Your task to perform on an android device: What's the weather today? Image 0: 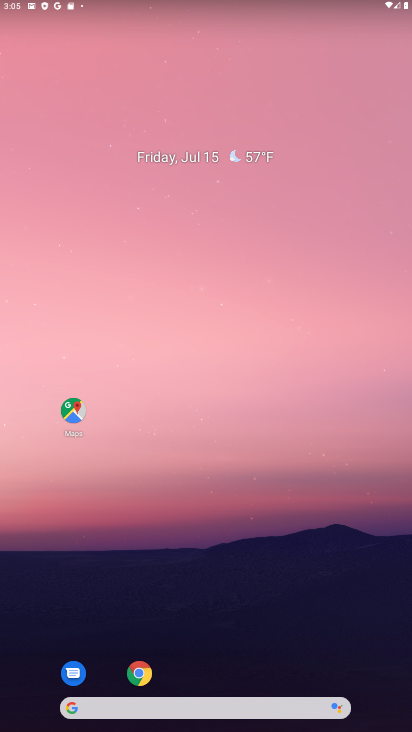
Step 0: drag from (185, 443) to (157, 30)
Your task to perform on an android device: What's the weather today? Image 1: 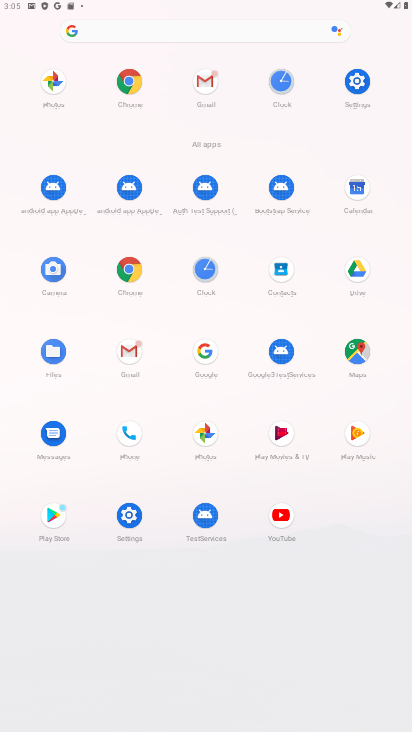
Step 1: click (195, 358)
Your task to perform on an android device: What's the weather today? Image 2: 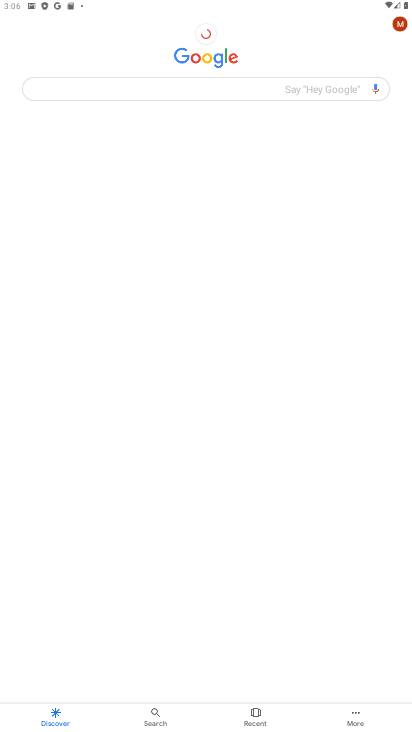
Step 2: click (124, 90)
Your task to perform on an android device: What's the weather today? Image 3: 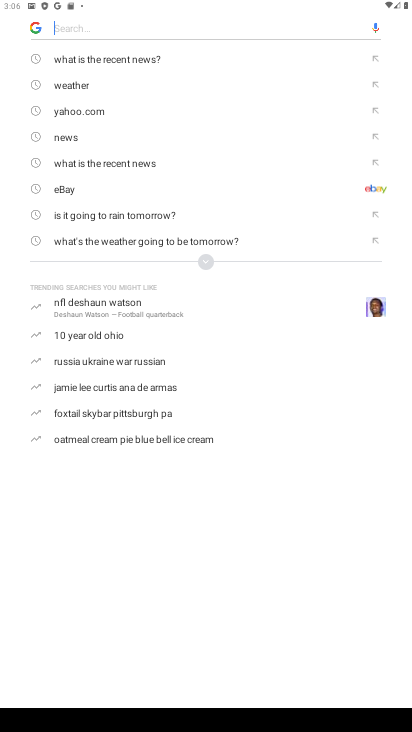
Step 3: click (71, 87)
Your task to perform on an android device: What's the weather today? Image 4: 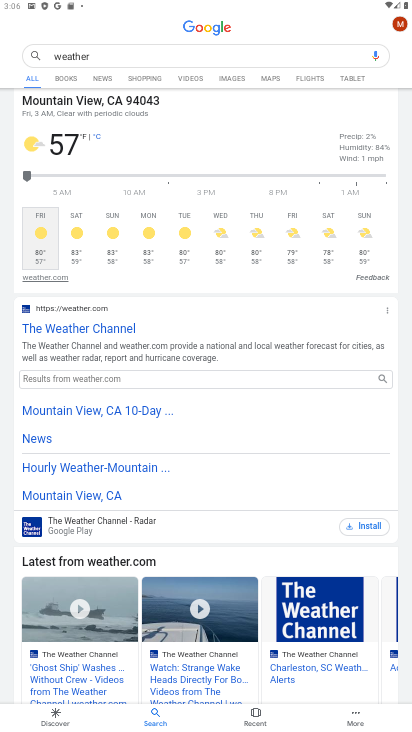
Step 4: task complete